Your task to perform on an android device: Search for sushi restaurants on Maps Image 0: 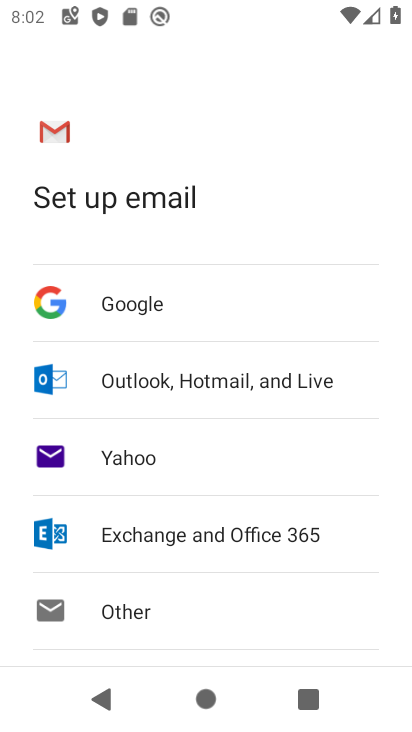
Step 0: press home button
Your task to perform on an android device: Search for sushi restaurants on Maps Image 1: 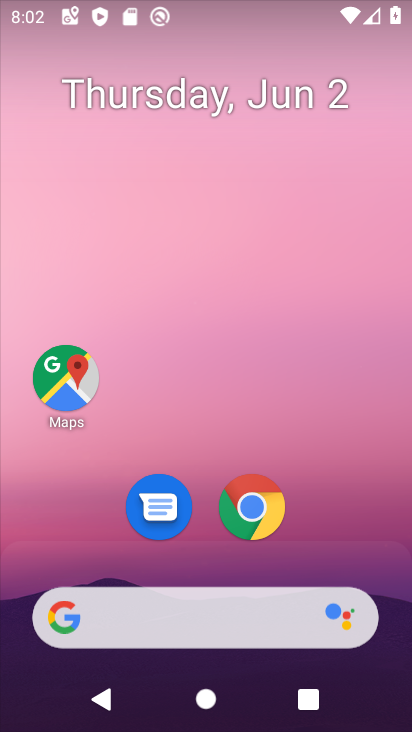
Step 1: click (76, 386)
Your task to perform on an android device: Search for sushi restaurants on Maps Image 2: 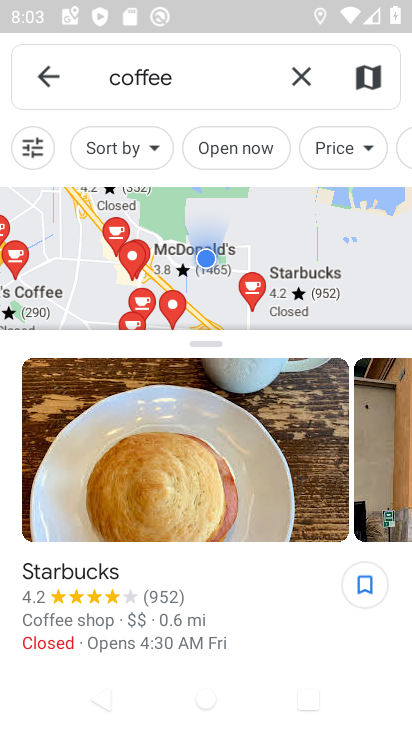
Step 2: click (299, 80)
Your task to perform on an android device: Search for sushi restaurants on Maps Image 3: 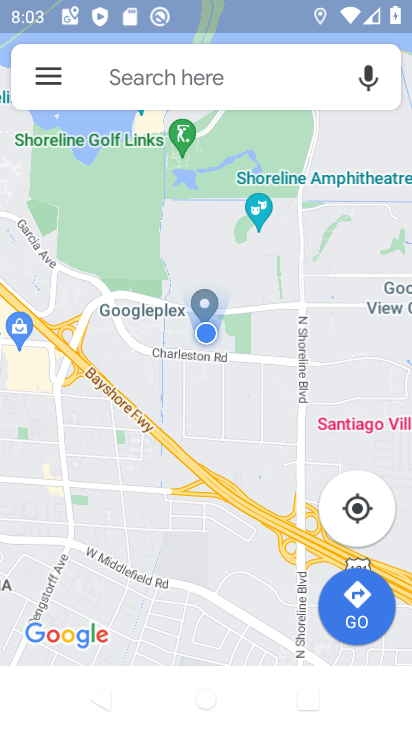
Step 3: click (153, 77)
Your task to perform on an android device: Search for sushi restaurants on Maps Image 4: 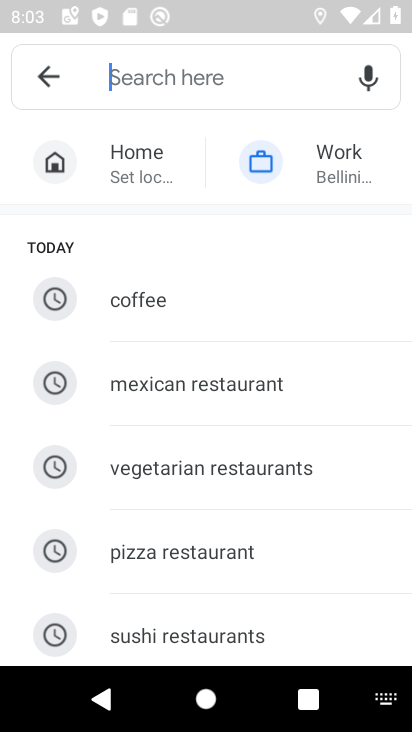
Step 4: type "Sushi restaurants"
Your task to perform on an android device: Search for sushi restaurants on Maps Image 5: 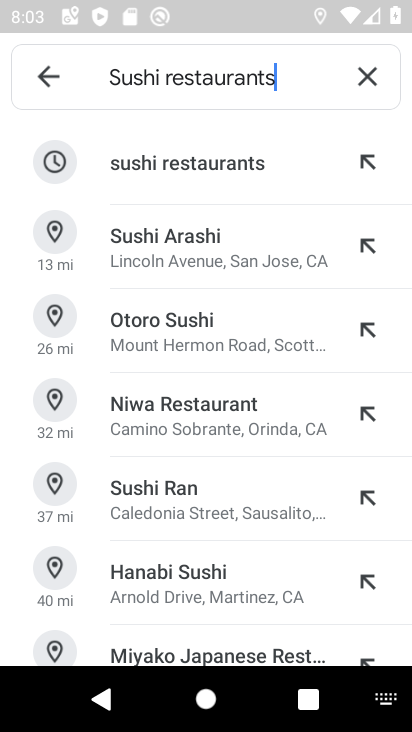
Step 5: click (270, 178)
Your task to perform on an android device: Search for sushi restaurants on Maps Image 6: 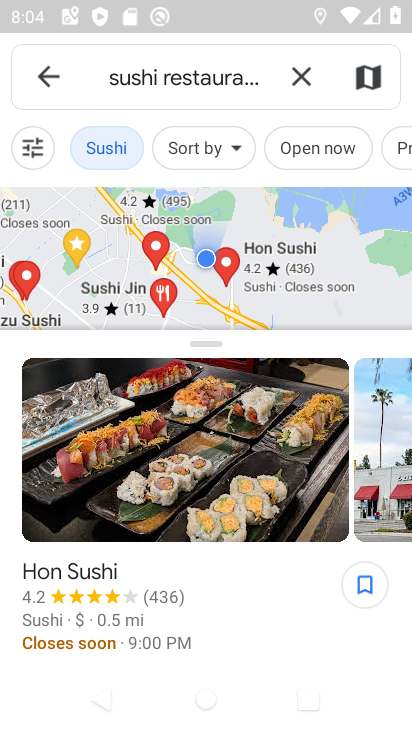
Step 6: task complete